Your task to perform on an android device: Open the Play Movies app and select the watchlist tab. Image 0: 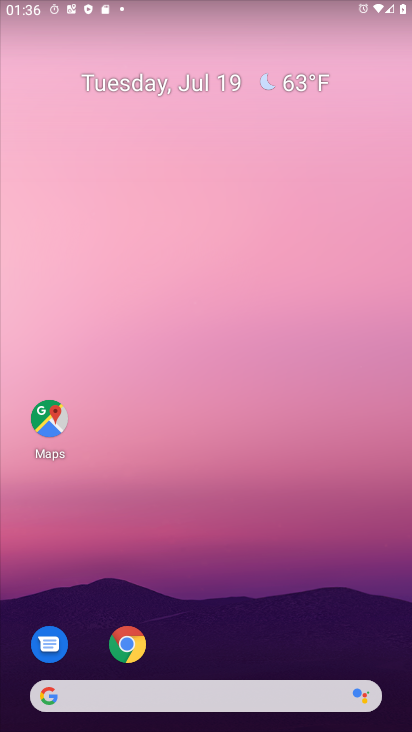
Step 0: drag from (237, 719) to (254, 276)
Your task to perform on an android device: Open the Play Movies app and select the watchlist tab. Image 1: 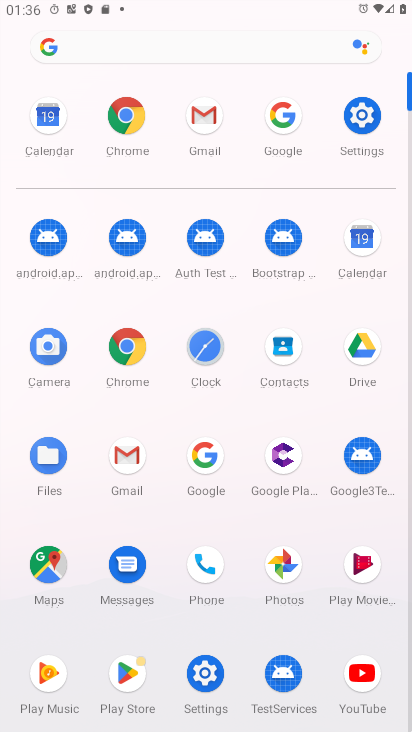
Step 1: click (363, 561)
Your task to perform on an android device: Open the Play Movies app and select the watchlist tab. Image 2: 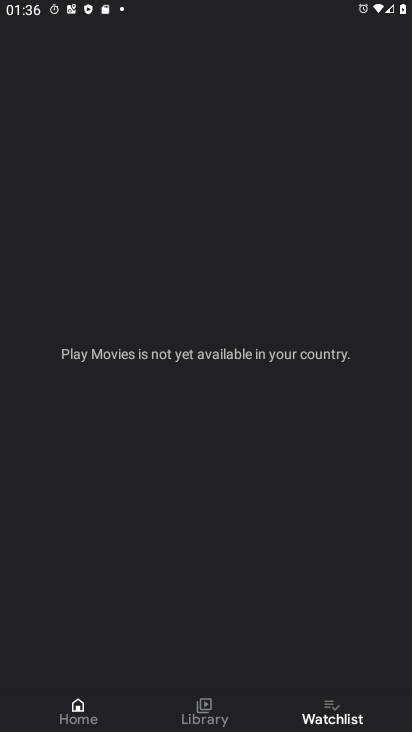
Step 2: task complete